Your task to perform on an android device: turn on the 12-hour format for clock Image 0: 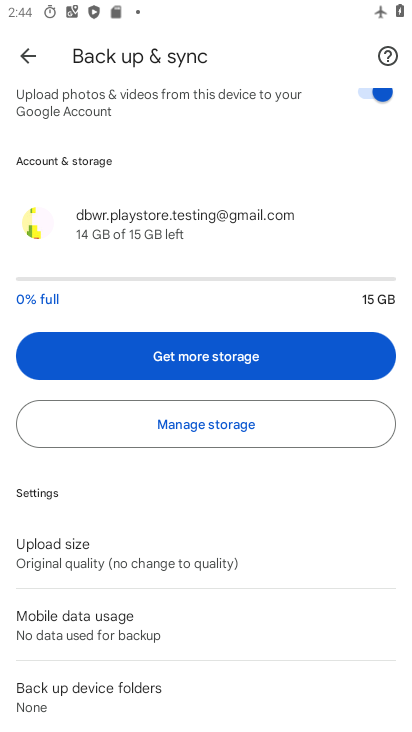
Step 0: drag from (217, 530) to (197, 164)
Your task to perform on an android device: turn on the 12-hour format for clock Image 1: 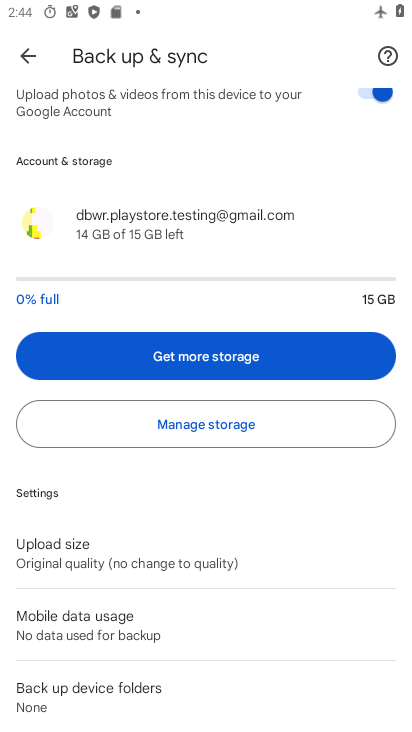
Step 1: drag from (200, 131) to (249, 598)
Your task to perform on an android device: turn on the 12-hour format for clock Image 2: 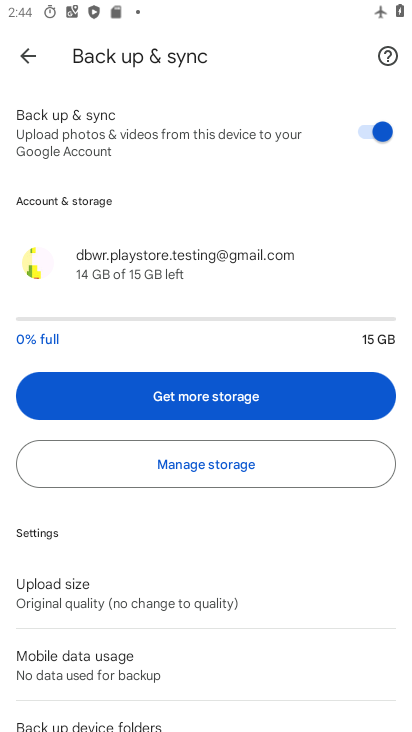
Step 2: drag from (253, 516) to (281, 194)
Your task to perform on an android device: turn on the 12-hour format for clock Image 3: 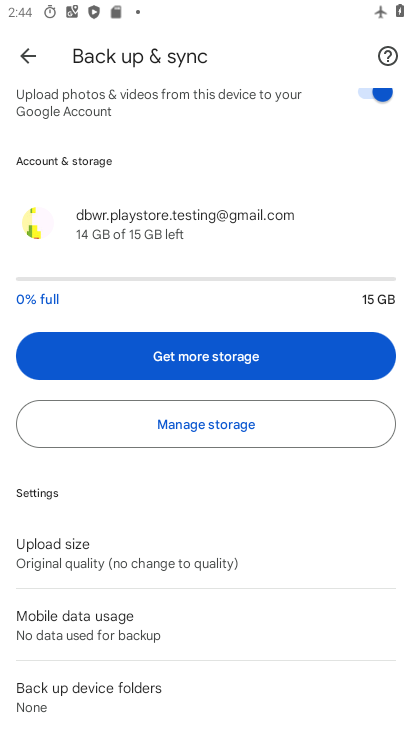
Step 3: drag from (173, 213) to (276, 668)
Your task to perform on an android device: turn on the 12-hour format for clock Image 4: 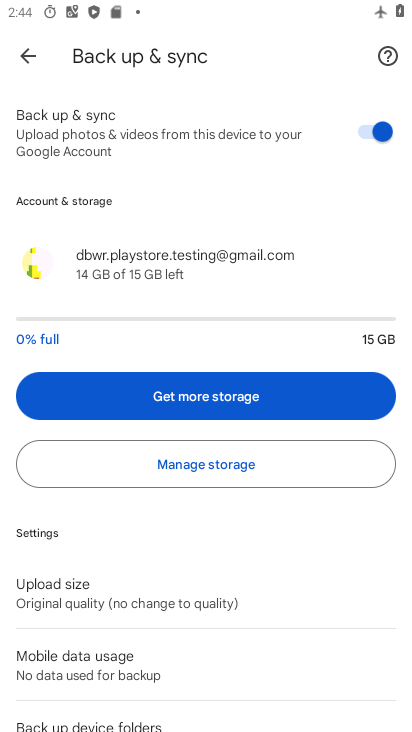
Step 4: click (34, 56)
Your task to perform on an android device: turn on the 12-hour format for clock Image 5: 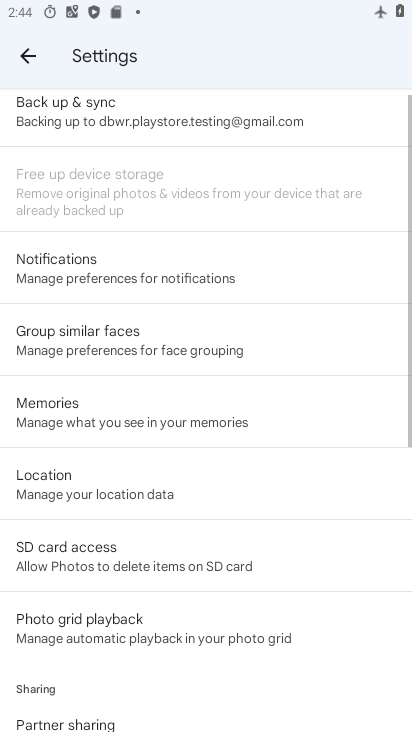
Step 5: drag from (180, 229) to (327, 706)
Your task to perform on an android device: turn on the 12-hour format for clock Image 6: 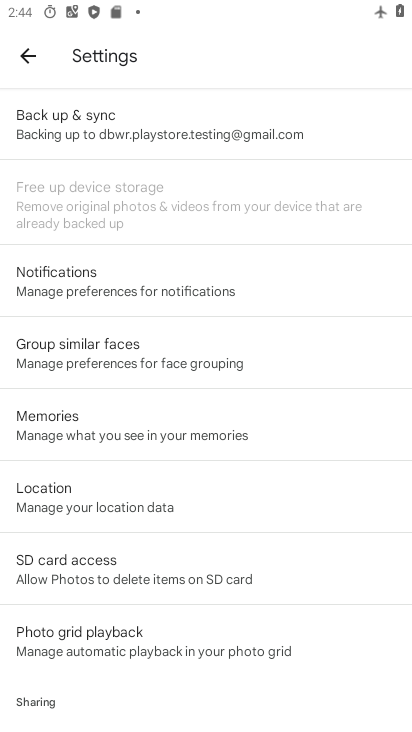
Step 6: press home button
Your task to perform on an android device: turn on the 12-hour format for clock Image 7: 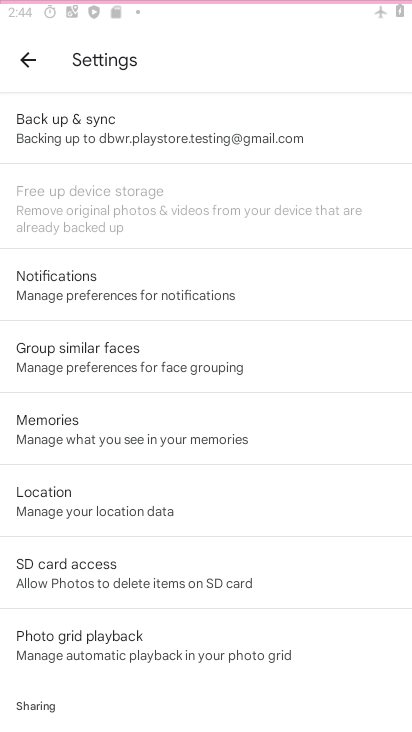
Step 7: drag from (363, 475) to (406, 331)
Your task to perform on an android device: turn on the 12-hour format for clock Image 8: 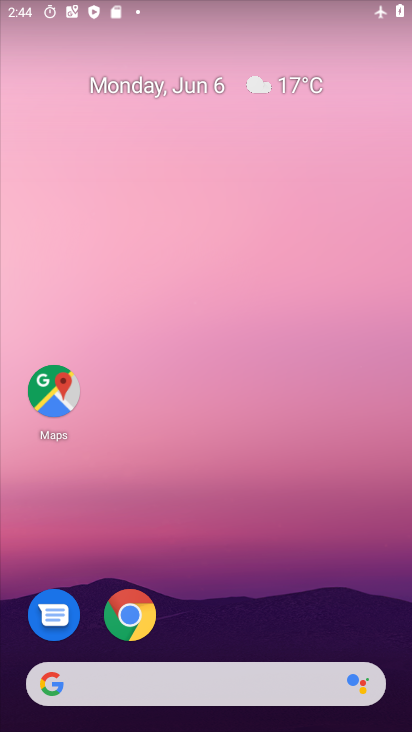
Step 8: drag from (199, 632) to (244, 137)
Your task to perform on an android device: turn on the 12-hour format for clock Image 9: 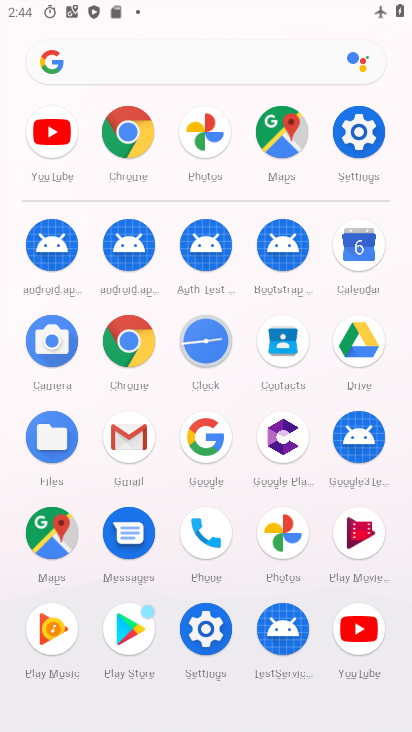
Step 9: click (200, 337)
Your task to perform on an android device: turn on the 12-hour format for clock Image 10: 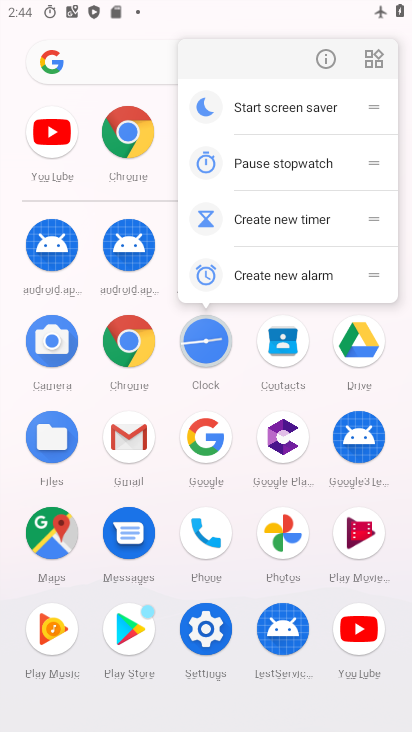
Step 10: click (322, 44)
Your task to perform on an android device: turn on the 12-hour format for clock Image 11: 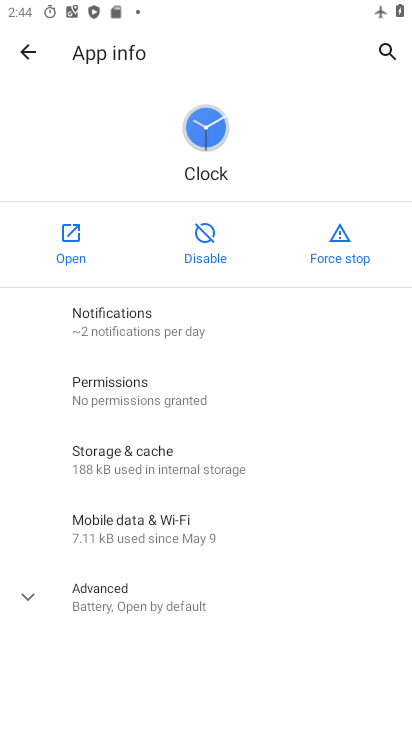
Step 11: click (78, 240)
Your task to perform on an android device: turn on the 12-hour format for clock Image 12: 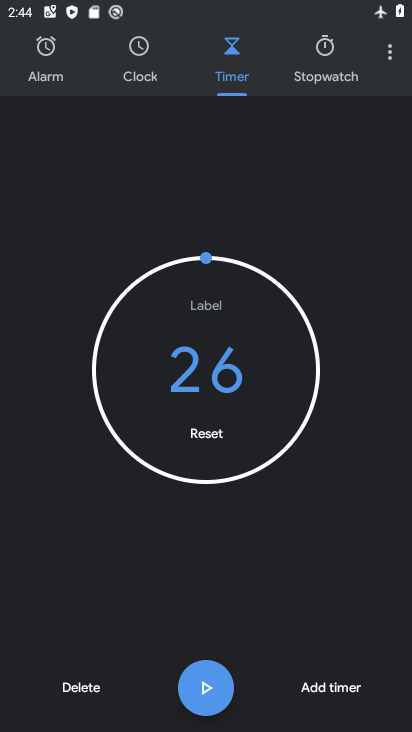
Step 12: click (387, 62)
Your task to perform on an android device: turn on the 12-hour format for clock Image 13: 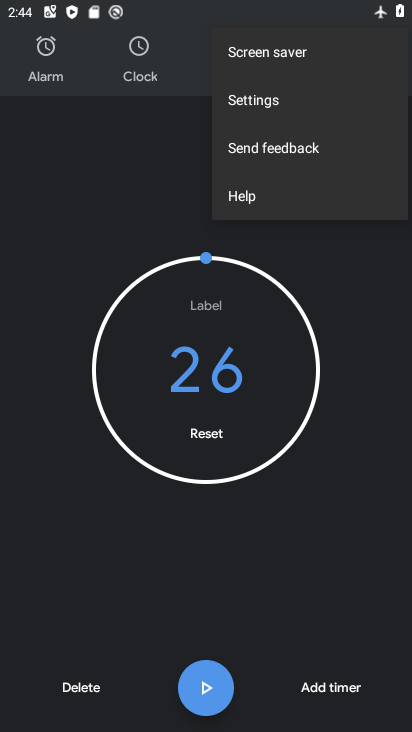
Step 13: click (305, 103)
Your task to perform on an android device: turn on the 12-hour format for clock Image 14: 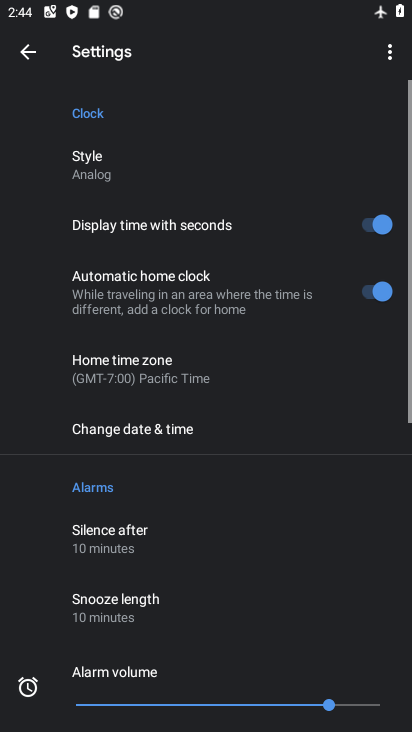
Step 14: drag from (234, 523) to (241, 263)
Your task to perform on an android device: turn on the 12-hour format for clock Image 15: 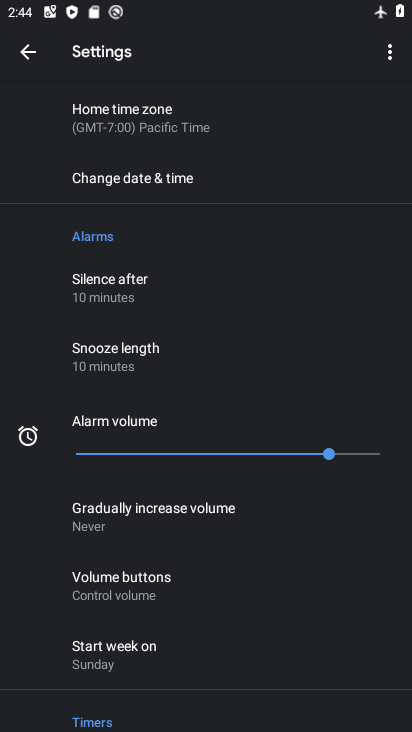
Step 15: click (142, 176)
Your task to perform on an android device: turn on the 12-hour format for clock Image 16: 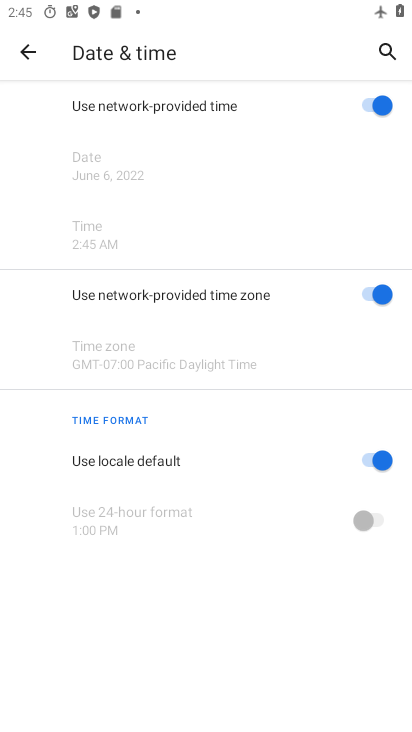
Step 16: task complete